Your task to perform on an android device: Do I have any events this weekend? Image 0: 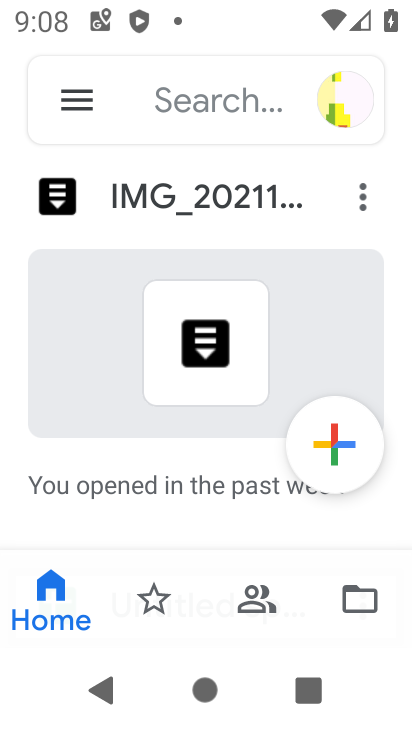
Step 0: press home button
Your task to perform on an android device: Do I have any events this weekend? Image 1: 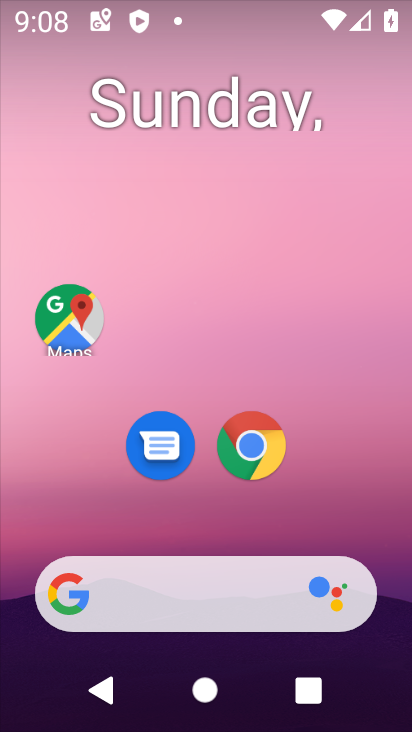
Step 1: drag from (360, 525) to (312, 28)
Your task to perform on an android device: Do I have any events this weekend? Image 2: 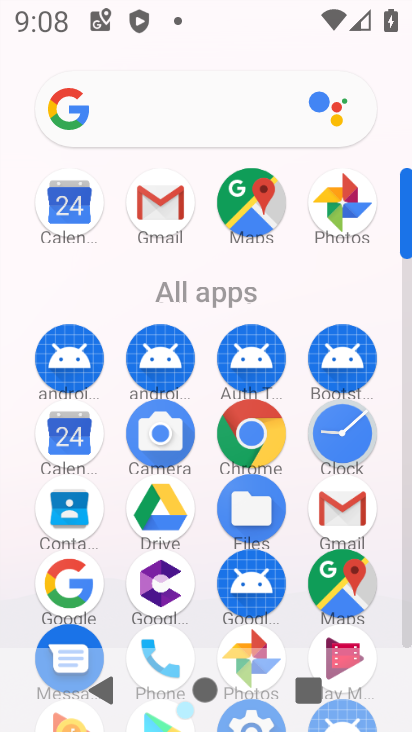
Step 2: click (405, 631)
Your task to perform on an android device: Do I have any events this weekend? Image 3: 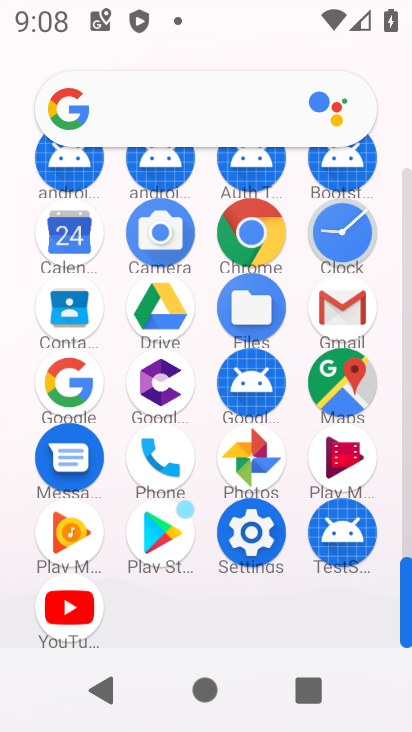
Step 3: click (67, 229)
Your task to perform on an android device: Do I have any events this weekend? Image 4: 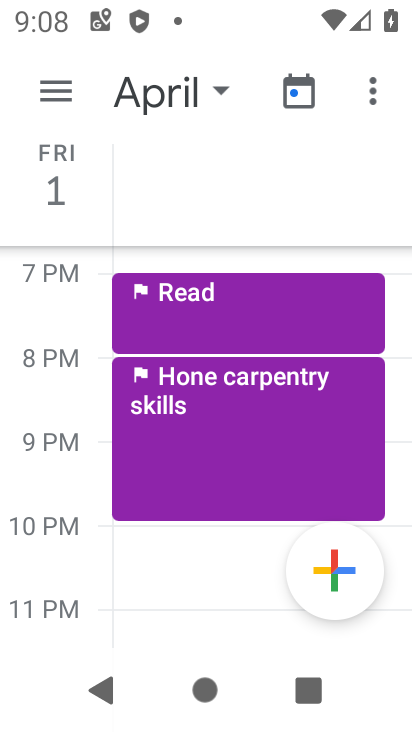
Step 4: click (51, 88)
Your task to perform on an android device: Do I have any events this weekend? Image 5: 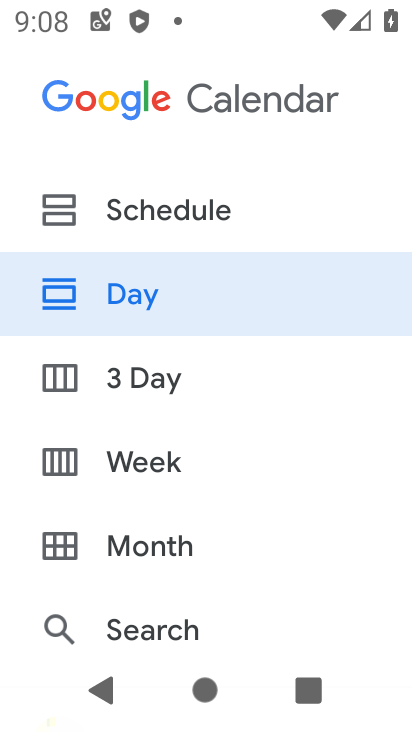
Step 5: click (135, 458)
Your task to perform on an android device: Do I have any events this weekend? Image 6: 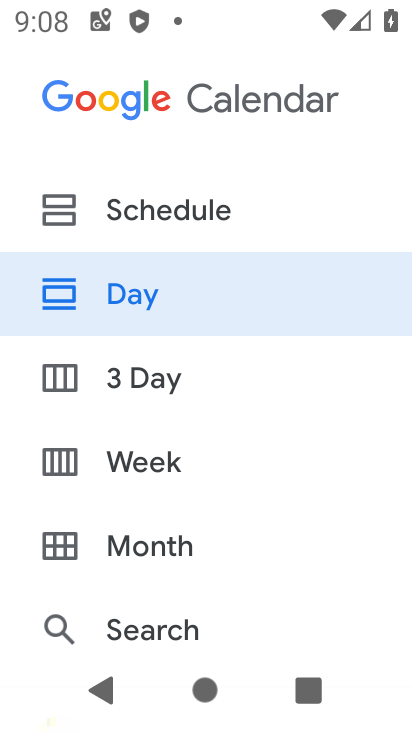
Step 6: click (177, 466)
Your task to perform on an android device: Do I have any events this weekend? Image 7: 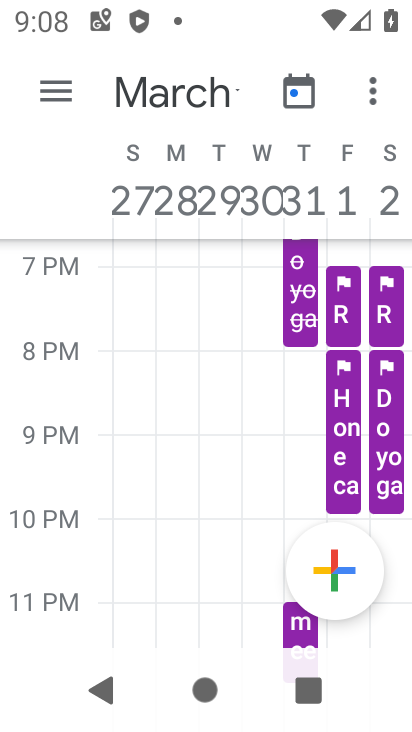
Step 7: drag from (225, 563) to (213, 164)
Your task to perform on an android device: Do I have any events this weekend? Image 8: 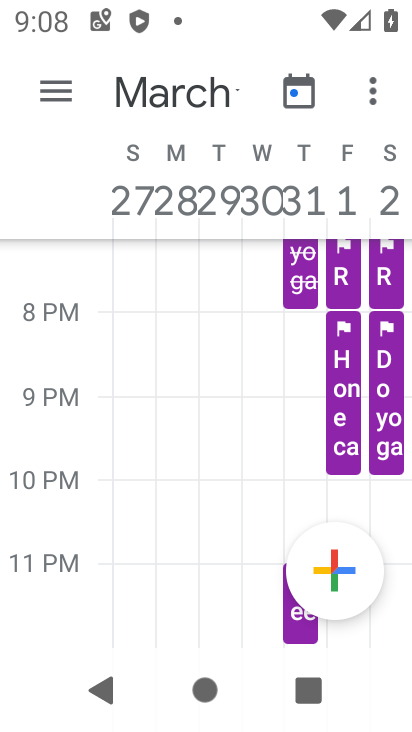
Step 8: drag from (193, 494) to (191, 134)
Your task to perform on an android device: Do I have any events this weekend? Image 9: 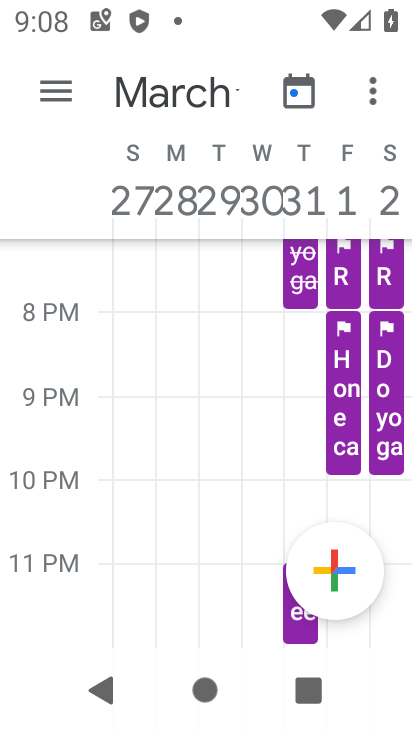
Step 9: click (291, 88)
Your task to perform on an android device: Do I have any events this weekend? Image 10: 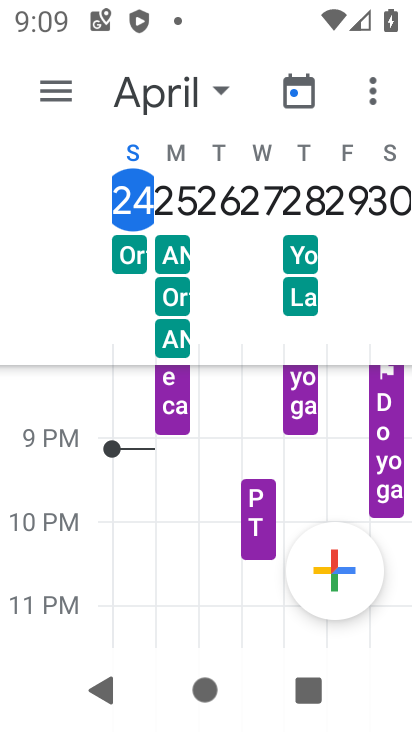
Step 10: task complete